Your task to perform on an android device: What is the news today? Image 0: 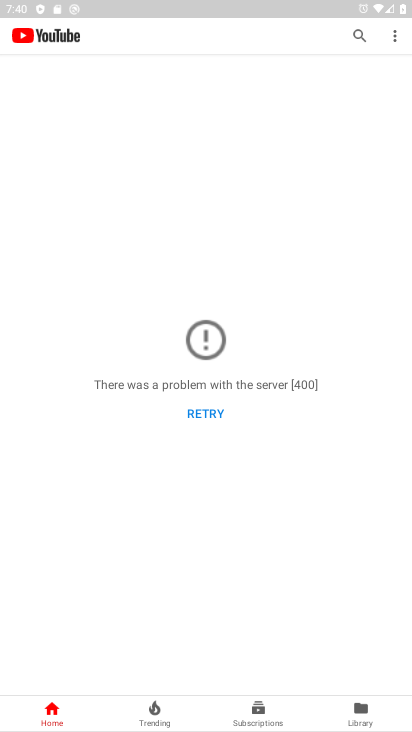
Step 0: press home button
Your task to perform on an android device: What is the news today? Image 1: 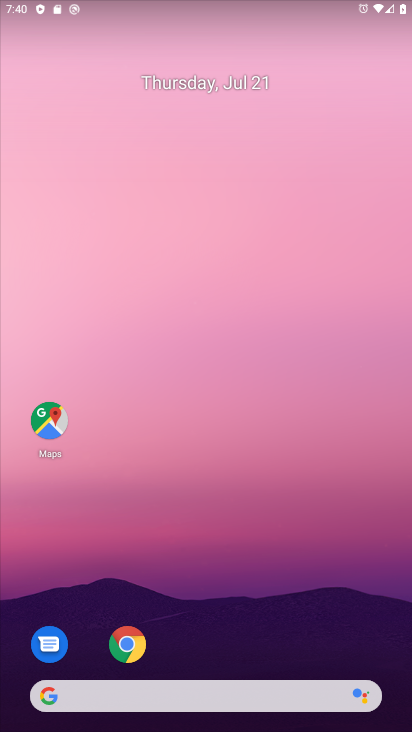
Step 1: click (128, 643)
Your task to perform on an android device: What is the news today? Image 2: 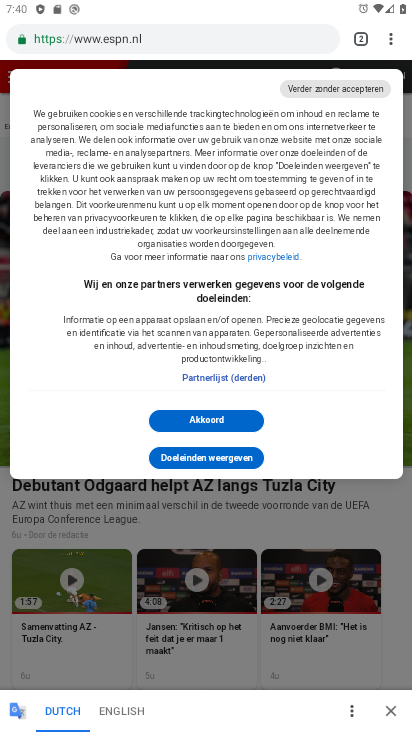
Step 2: click (402, 27)
Your task to perform on an android device: What is the news today? Image 3: 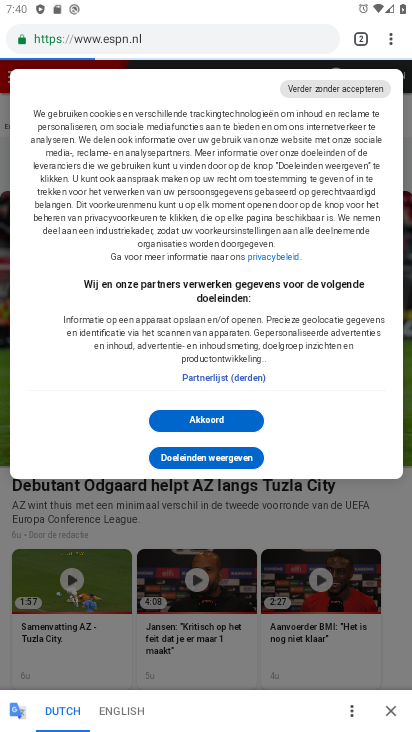
Step 3: click (398, 34)
Your task to perform on an android device: What is the news today? Image 4: 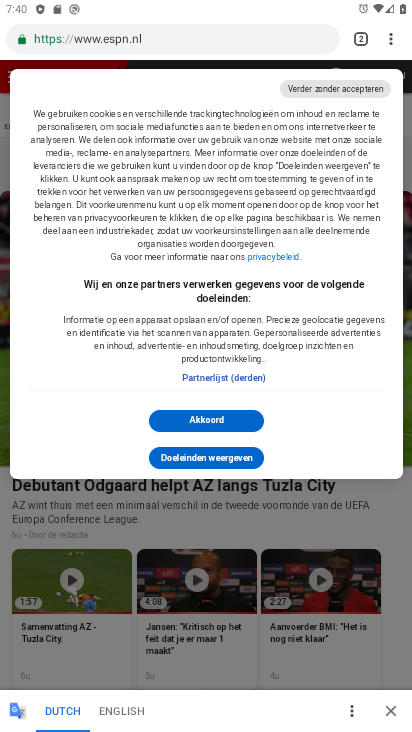
Step 4: click (391, 36)
Your task to perform on an android device: What is the news today? Image 5: 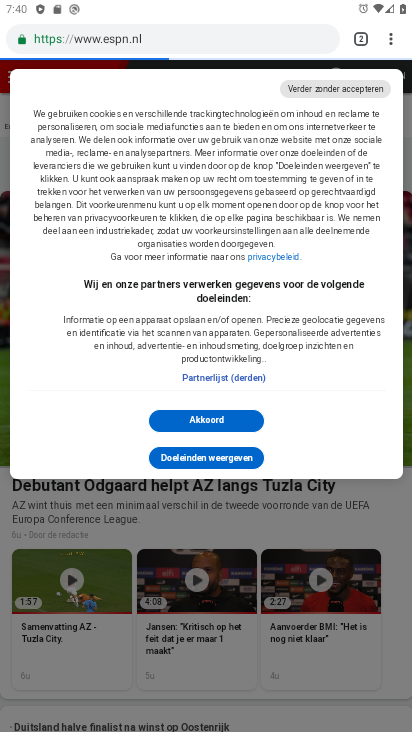
Step 5: click (391, 36)
Your task to perform on an android device: What is the news today? Image 6: 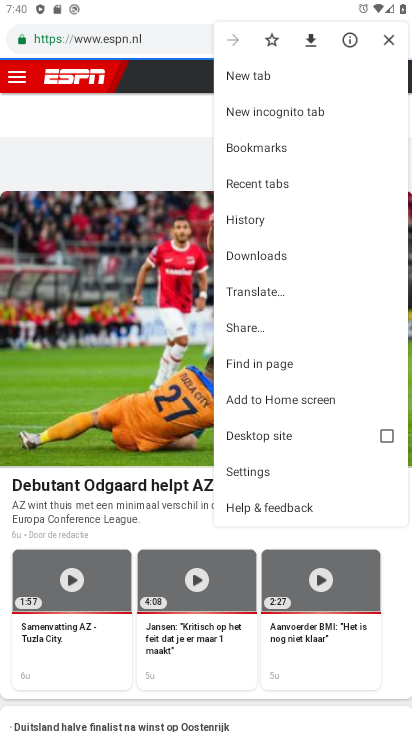
Step 6: click (246, 67)
Your task to perform on an android device: What is the news today? Image 7: 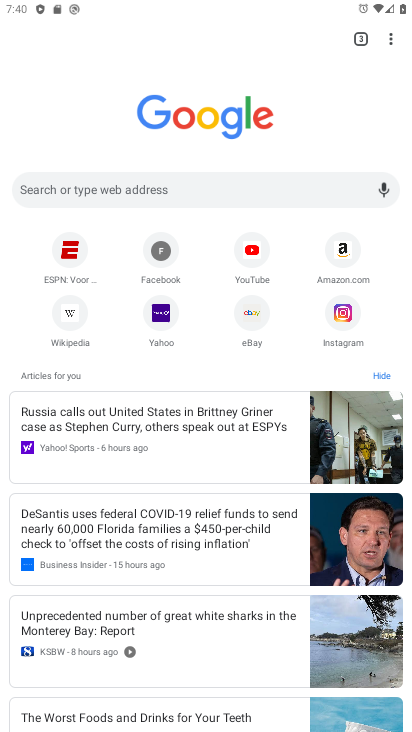
Step 7: click (246, 181)
Your task to perform on an android device: What is the news today? Image 8: 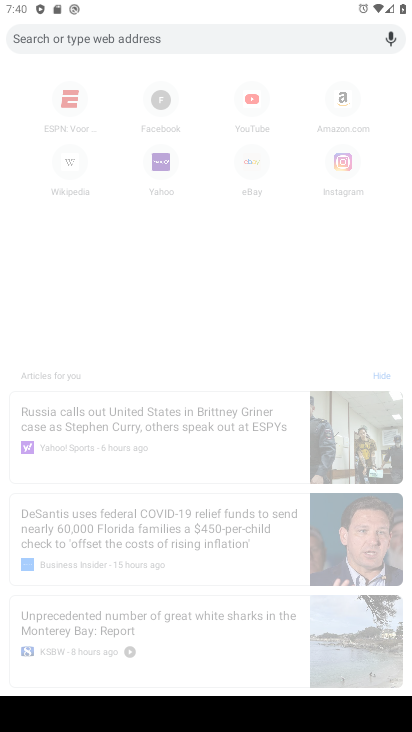
Step 8: type "What is the news today "
Your task to perform on an android device: What is the news today? Image 9: 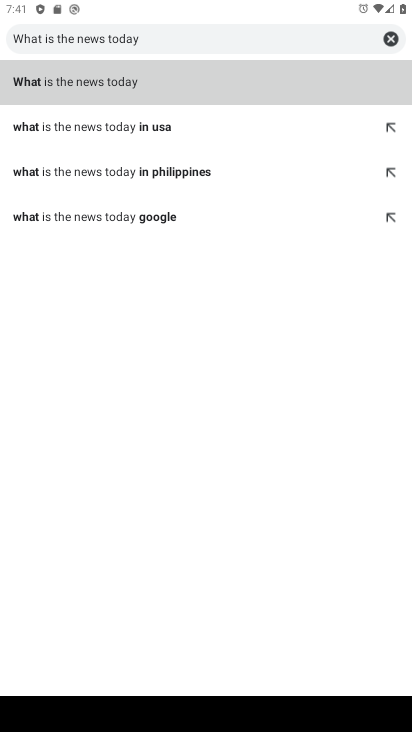
Step 9: click (150, 78)
Your task to perform on an android device: What is the news today? Image 10: 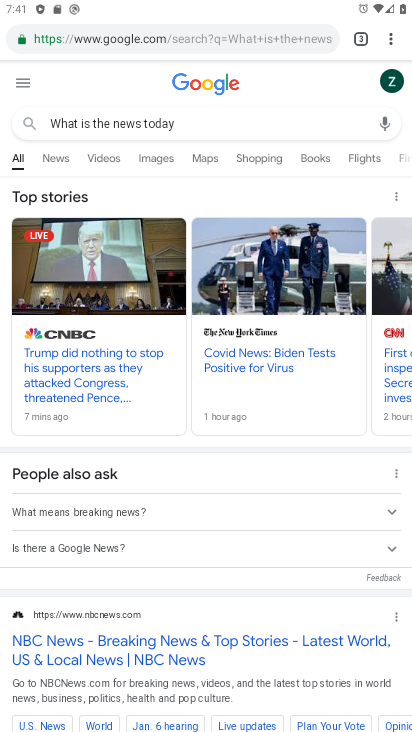
Step 10: task complete